Your task to perform on an android device: change notifications settings Image 0: 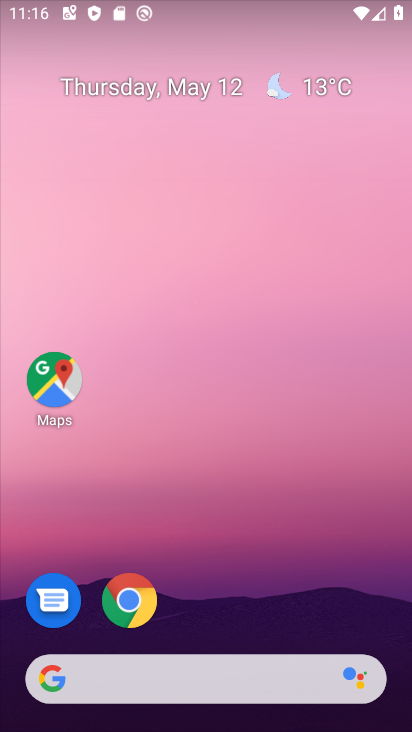
Step 0: drag from (397, 649) to (297, 63)
Your task to perform on an android device: change notifications settings Image 1: 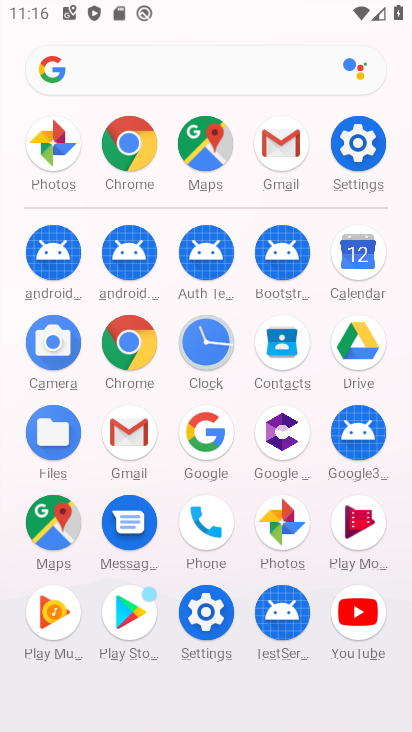
Step 1: click (202, 611)
Your task to perform on an android device: change notifications settings Image 2: 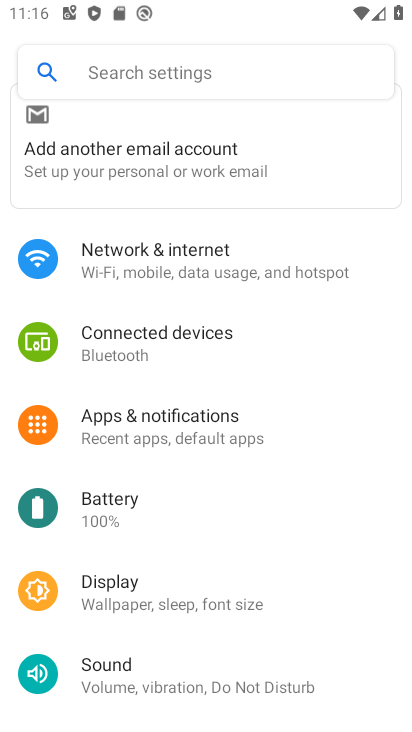
Step 2: click (150, 418)
Your task to perform on an android device: change notifications settings Image 3: 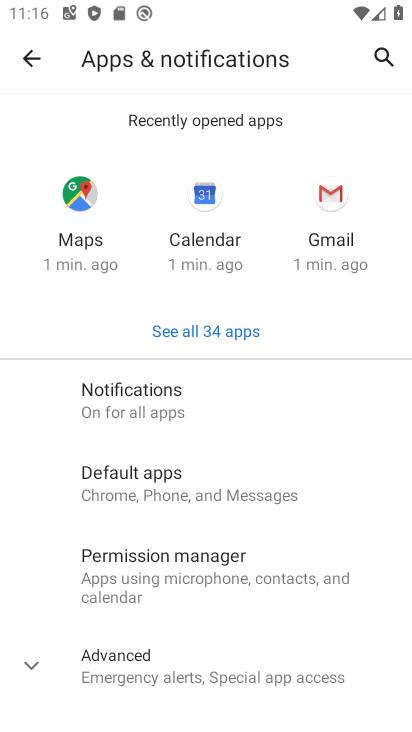
Step 3: click (124, 407)
Your task to perform on an android device: change notifications settings Image 4: 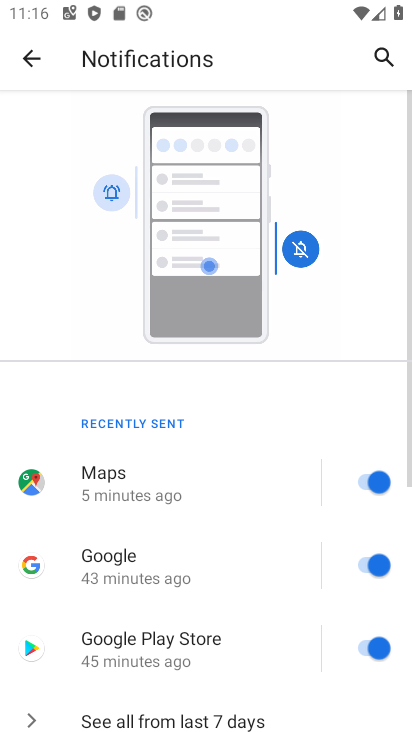
Step 4: drag from (302, 665) to (256, 221)
Your task to perform on an android device: change notifications settings Image 5: 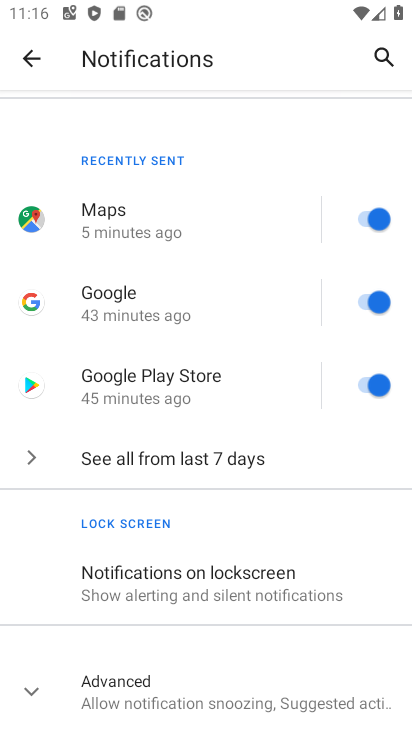
Step 5: click (22, 691)
Your task to perform on an android device: change notifications settings Image 6: 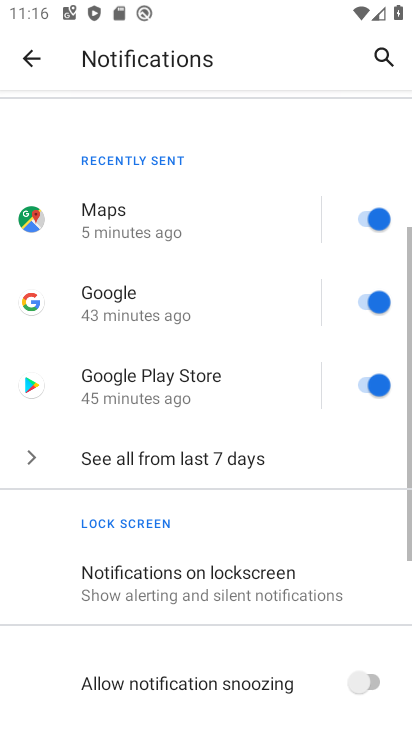
Step 6: task complete